Your task to perform on an android device: open wifi settings Image 0: 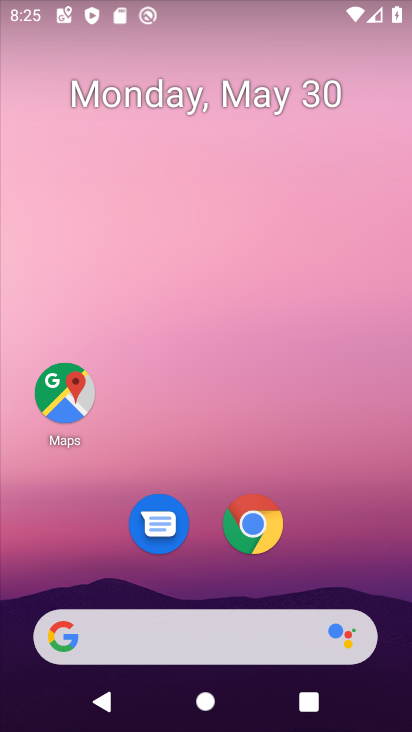
Step 0: drag from (321, 527) to (329, 1)
Your task to perform on an android device: open wifi settings Image 1: 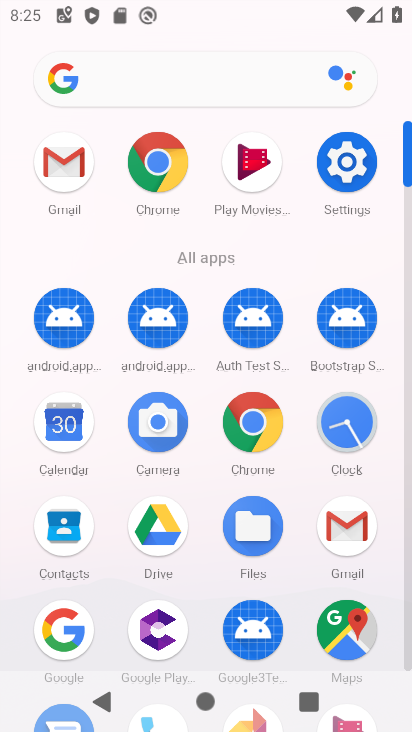
Step 1: click (344, 162)
Your task to perform on an android device: open wifi settings Image 2: 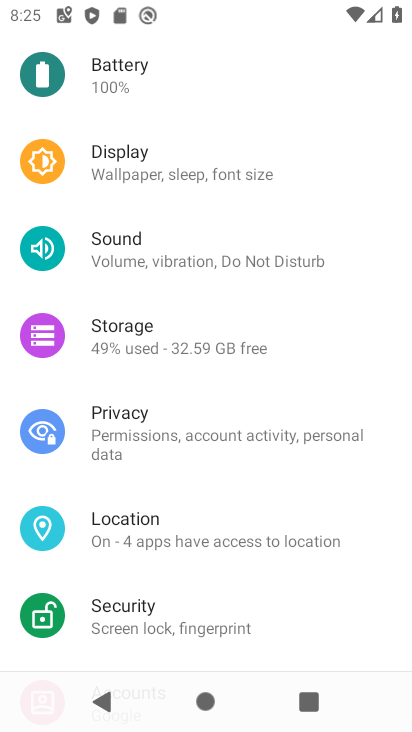
Step 2: drag from (210, 327) to (195, 631)
Your task to perform on an android device: open wifi settings Image 3: 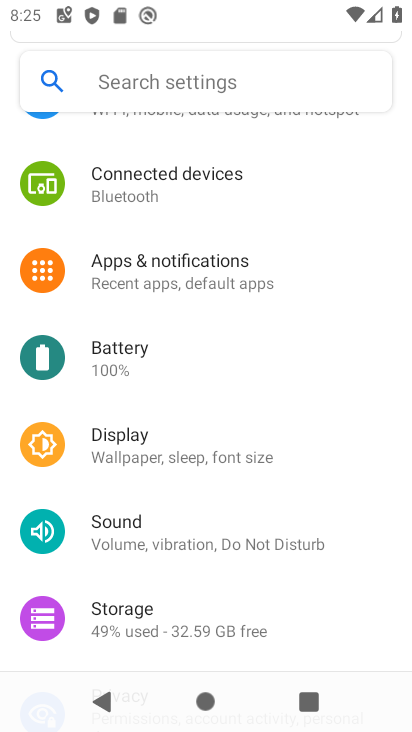
Step 3: drag from (213, 398) to (225, 610)
Your task to perform on an android device: open wifi settings Image 4: 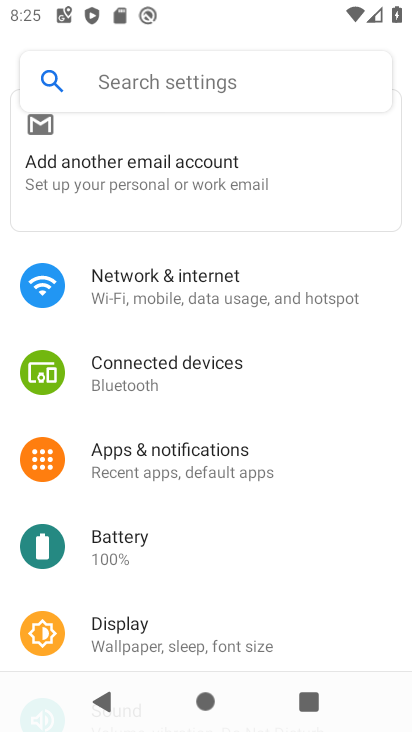
Step 4: click (248, 293)
Your task to perform on an android device: open wifi settings Image 5: 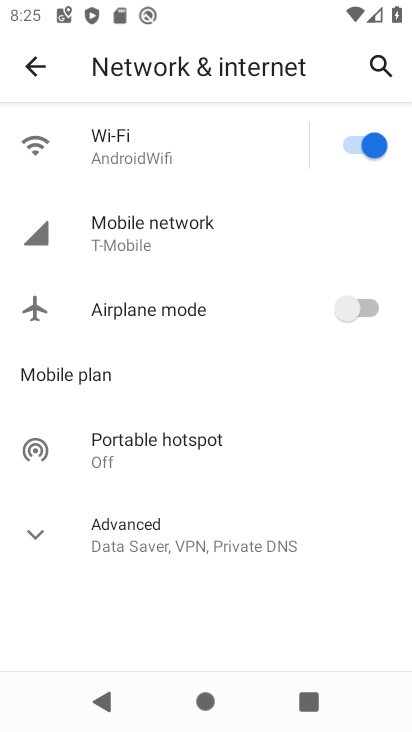
Step 5: click (156, 144)
Your task to perform on an android device: open wifi settings Image 6: 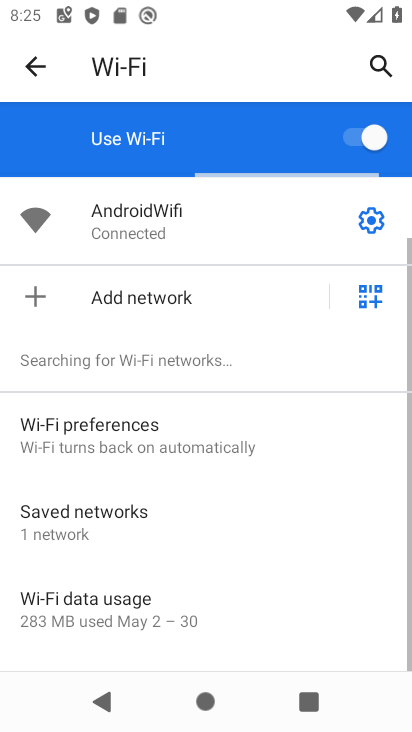
Step 6: task complete